Your task to perform on an android device: Open calendar and show me the third week of next month Image 0: 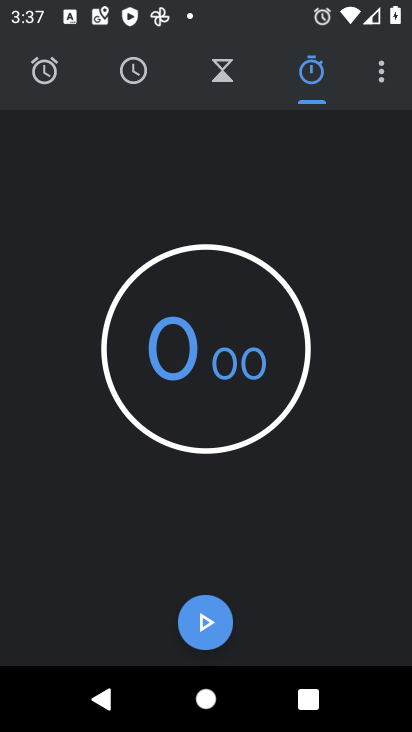
Step 0: press home button
Your task to perform on an android device: Open calendar and show me the third week of next month Image 1: 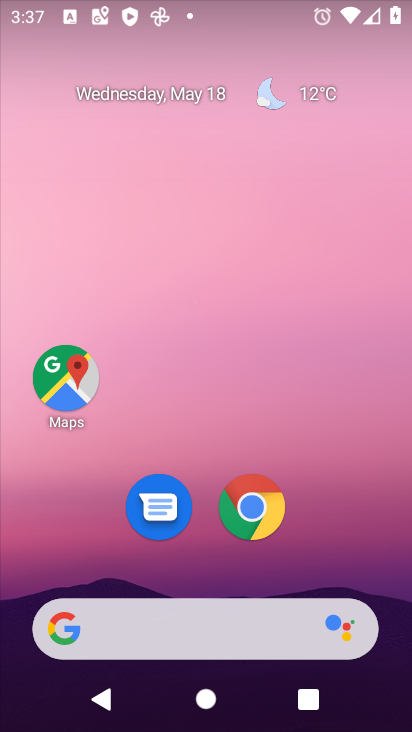
Step 1: drag from (377, 561) to (299, 72)
Your task to perform on an android device: Open calendar and show me the third week of next month Image 2: 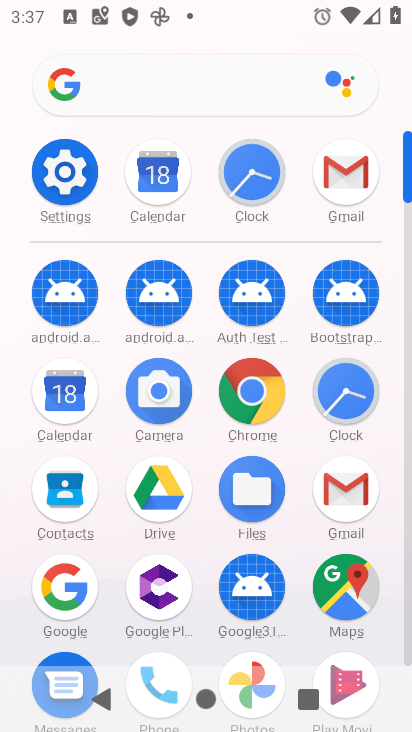
Step 2: click (70, 395)
Your task to perform on an android device: Open calendar and show me the third week of next month Image 3: 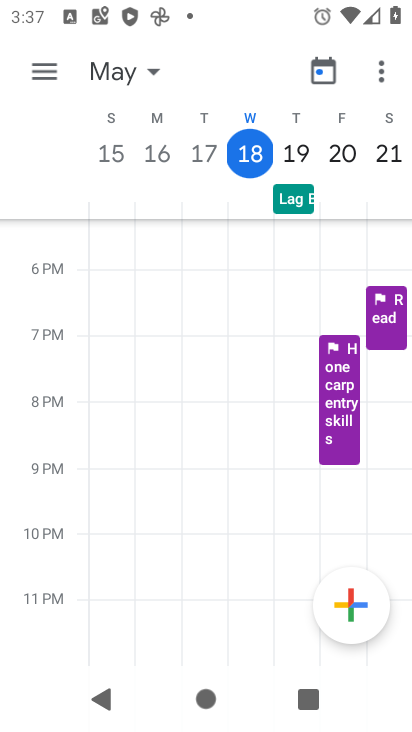
Step 3: click (151, 73)
Your task to perform on an android device: Open calendar and show me the third week of next month Image 4: 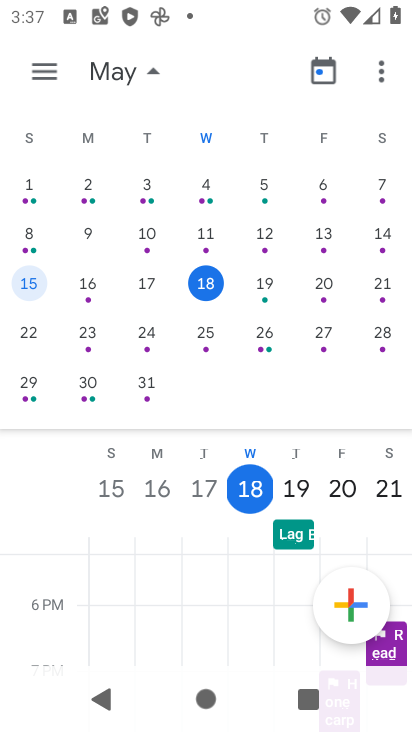
Step 4: drag from (376, 273) to (89, 228)
Your task to perform on an android device: Open calendar and show me the third week of next month Image 5: 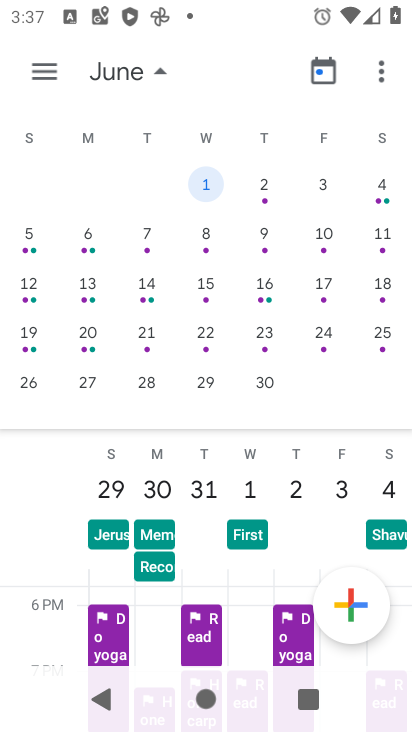
Step 5: click (17, 296)
Your task to perform on an android device: Open calendar and show me the third week of next month Image 6: 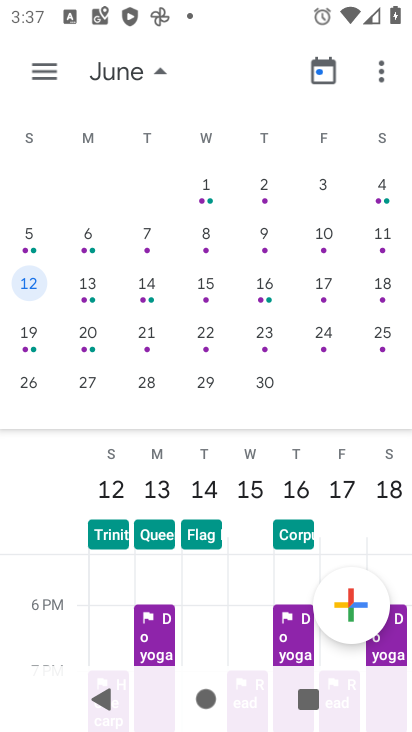
Step 6: task complete